Your task to perform on an android device: set an alarm Image 0: 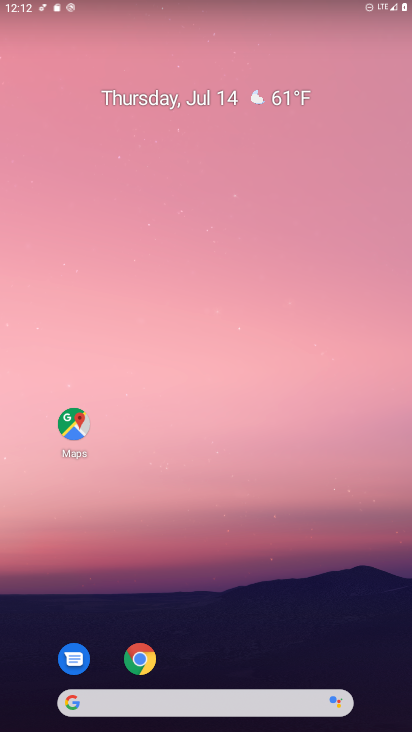
Step 0: drag from (349, 624) to (306, 222)
Your task to perform on an android device: set an alarm Image 1: 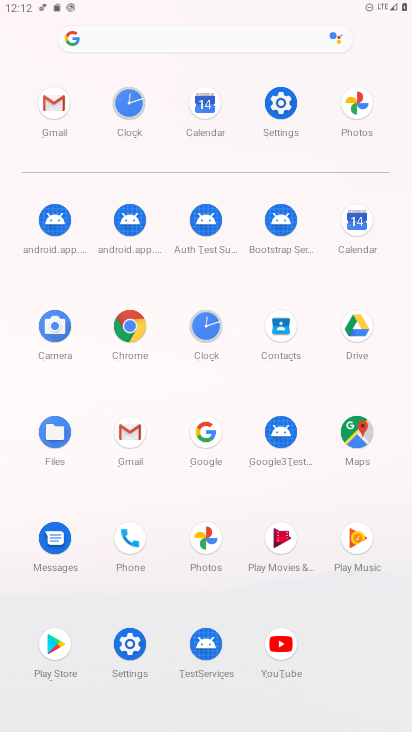
Step 1: click (203, 320)
Your task to perform on an android device: set an alarm Image 2: 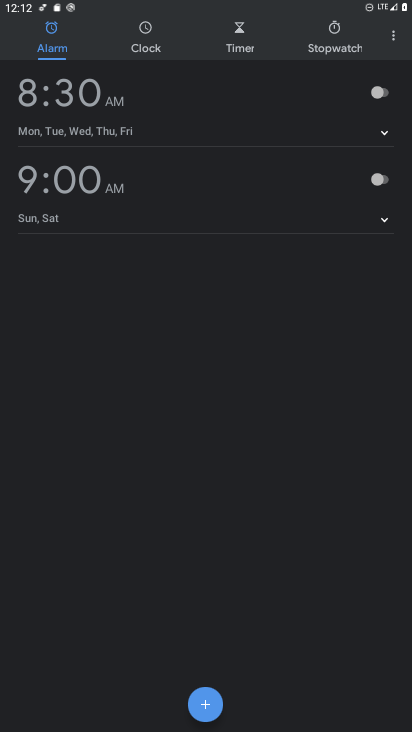
Step 2: click (50, 102)
Your task to perform on an android device: set an alarm Image 3: 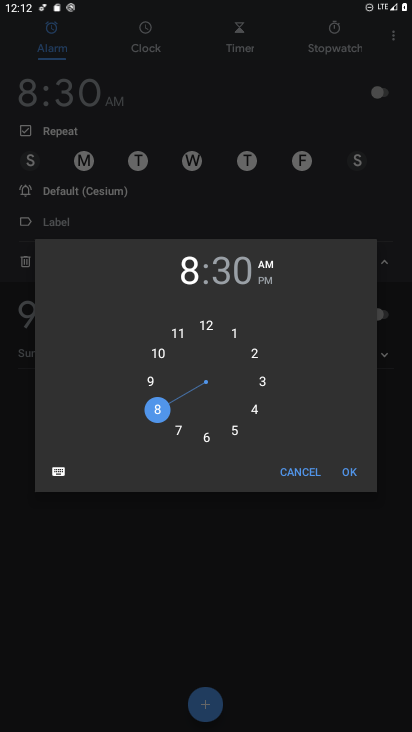
Step 3: click (203, 439)
Your task to perform on an android device: set an alarm Image 4: 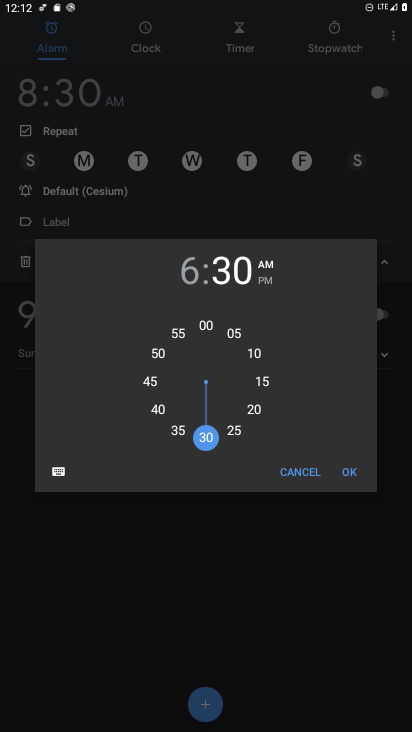
Step 4: click (265, 378)
Your task to perform on an android device: set an alarm Image 5: 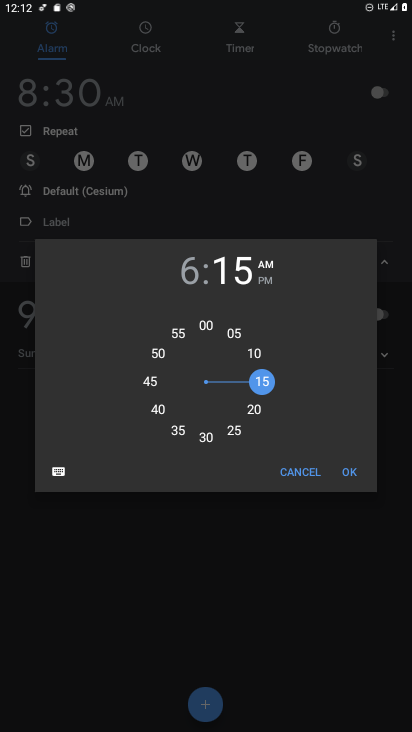
Step 5: click (345, 470)
Your task to perform on an android device: set an alarm Image 6: 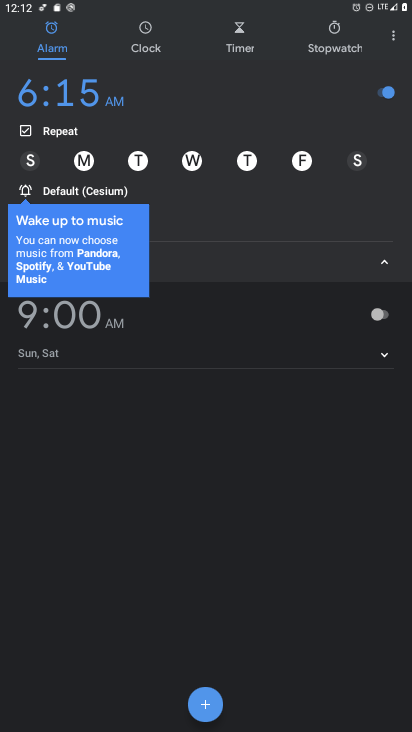
Step 6: click (358, 160)
Your task to perform on an android device: set an alarm Image 7: 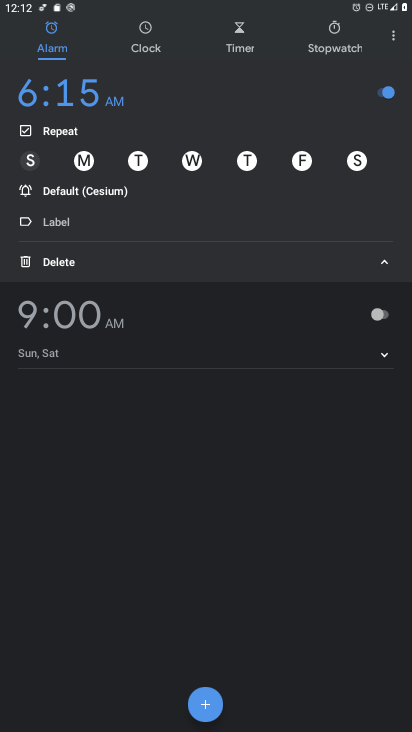
Step 7: click (382, 262)
Your task to perform on an android device: set an alarm Image 8: 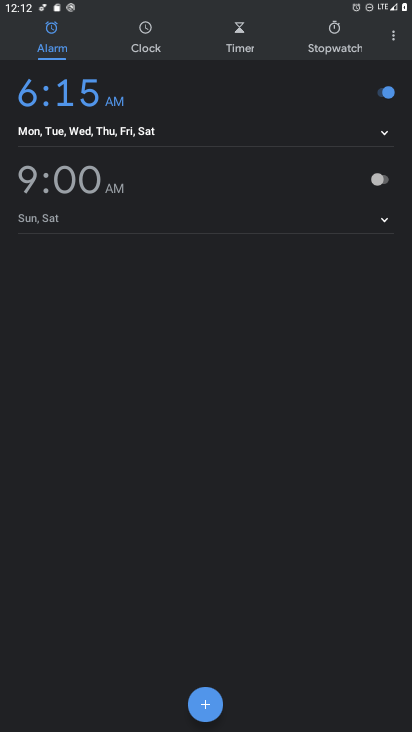
Step 8: task complete